Your task to perform on an android device: toggle priority inbox in the gmail app Image 0: 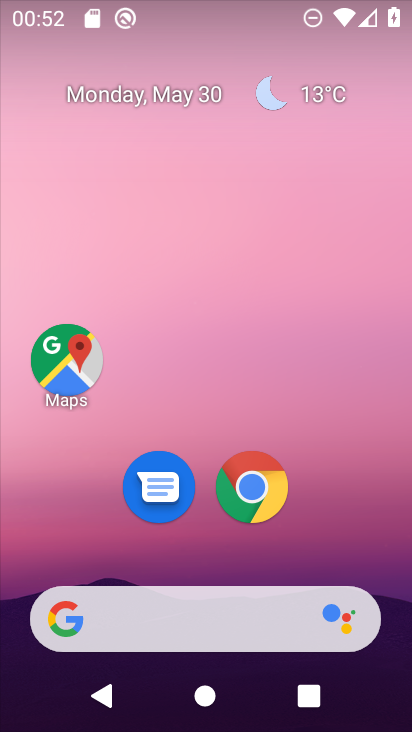
Step 0: drag from (390, 685) to (352, 215)
Your task to perform on an android device: toggle priority inbox in the gmail app Image 1: 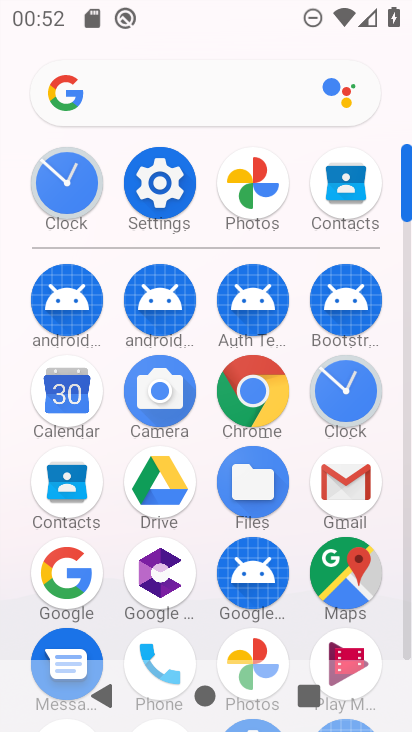
Step 1: click (335, 474)
Your task to perform on an android device: toggle priority inbox in the gmail app Image 2: 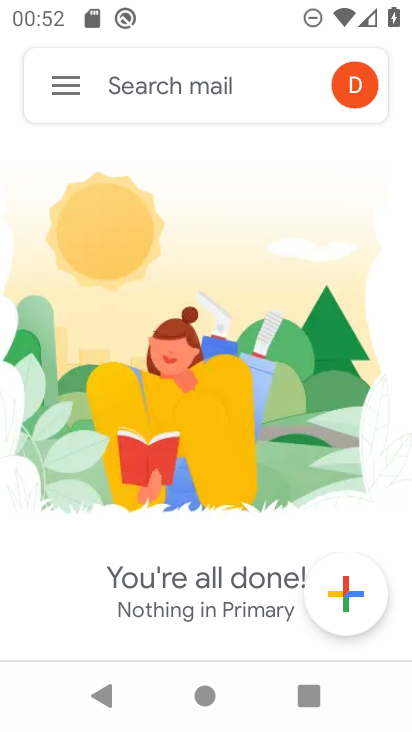
Step 2: click (60, 81)
Your task to perform on an android device: toggle priority inbox in the gmail app Image 3: 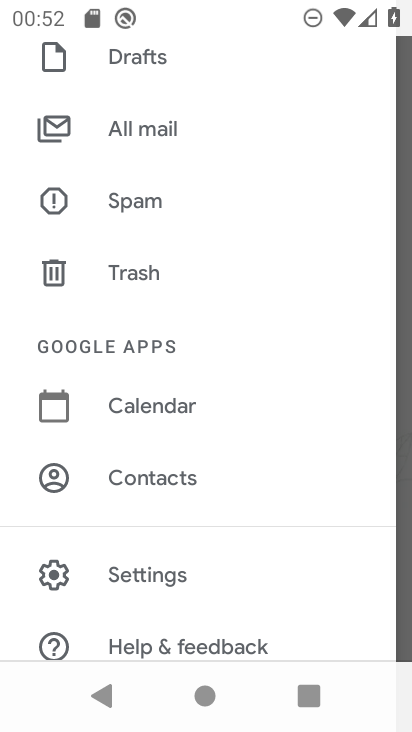
Step 3: drag from (284, 571) to (280, 290)
Your task to perform on an android device: toggle priority inbox in the gmail app Image 4: 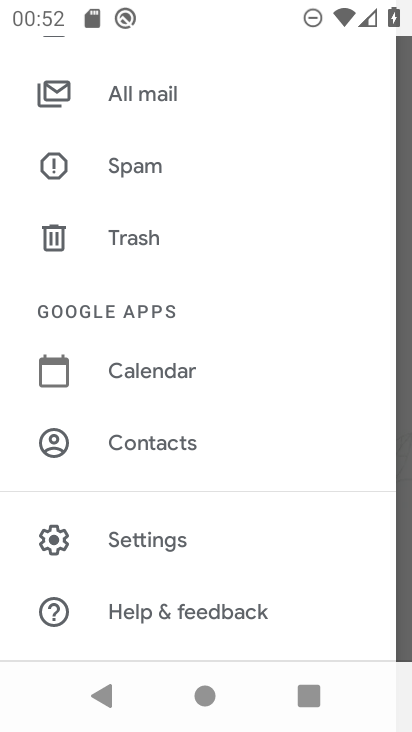
Step 4: click (126, 528)
Your task to perform on an android device: toggle priority inbox in the gmail app Image 5: 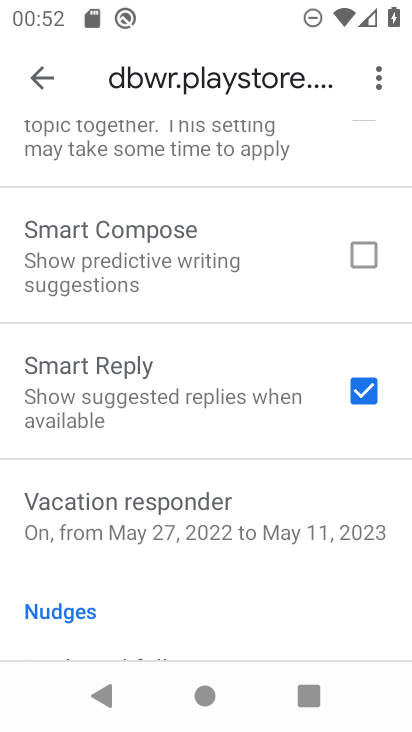
Step 5: drag from (227, 276) to (214, 558)
Your task to perform on an android device: toggle priority inbox in the gmail app Image 6: 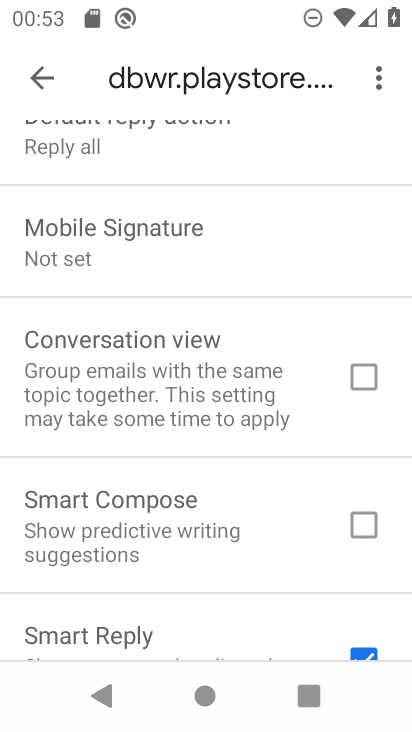
Step 6: drag from (195, 238) to (203, 490)
Your task to perform on an android device: toggle priority inbox in the gmail app Image 7: 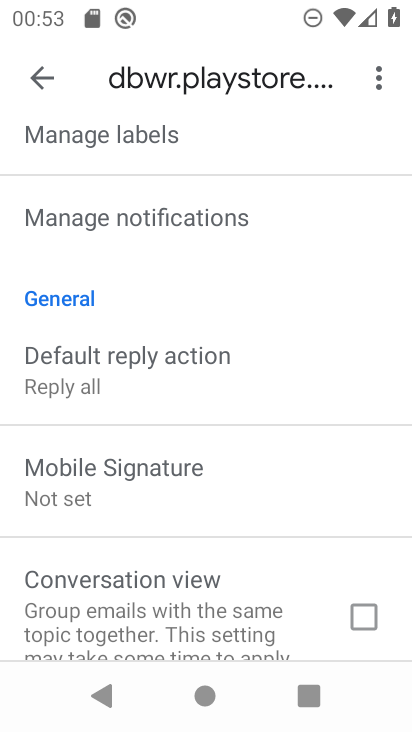
Step 7: drag from (198, 368) to (206, 574)
Your task to perform on an android device: toggle priority inbox in the gmail app Image 8: 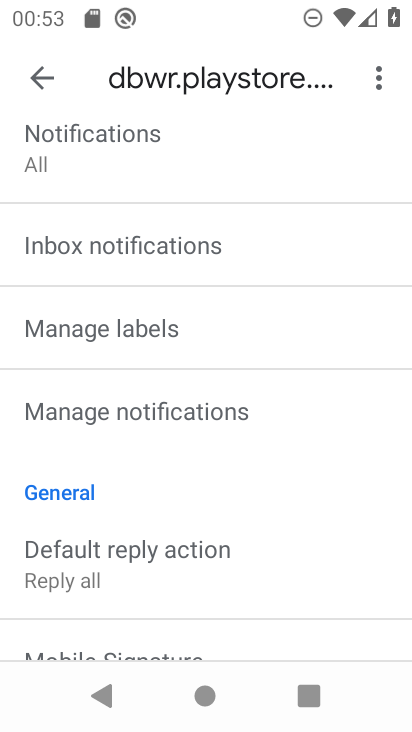
Step 8: drag from (210, 248) to (221, 551)
Your task to perform on an android device: toggle priority inbox in the gmail app Image 9: 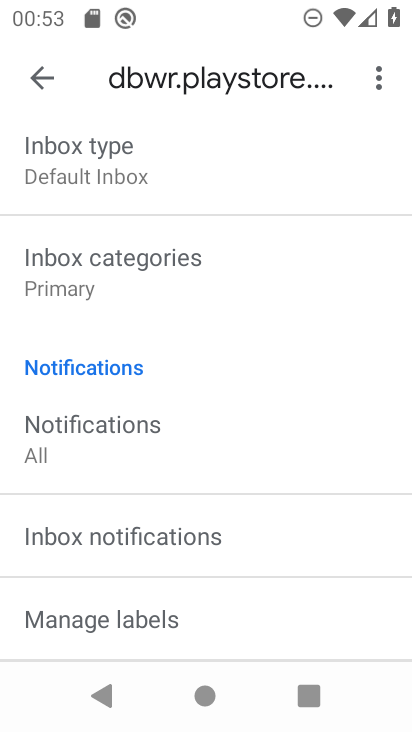
Step 9: click (87, 147)
Your task to perform on an android device: toggle priority inbox in the gmail app Image 10: 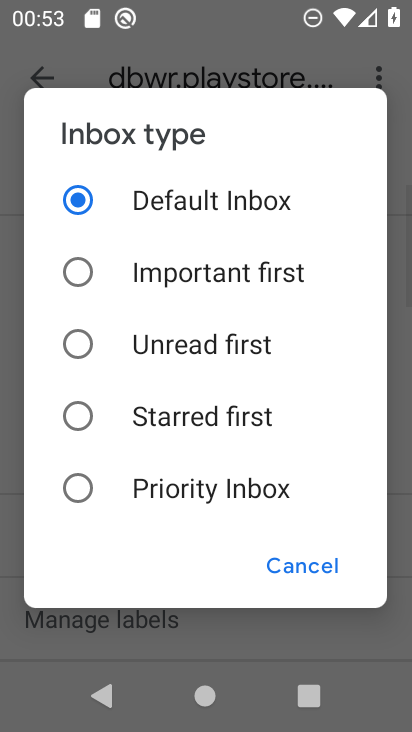
Step 10: click (121, 484)
Your task to perform on an android device: toggle priority inbox in the gmail app Image 11: 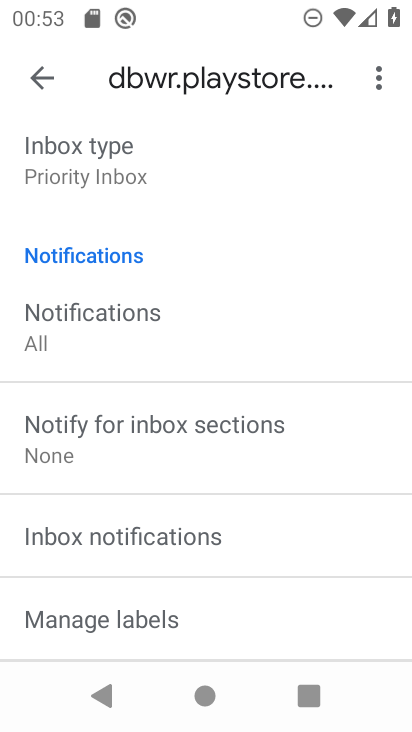
Step 11: task complete